Your task to perform on an android device: add a contact in the contacts app Image 0: 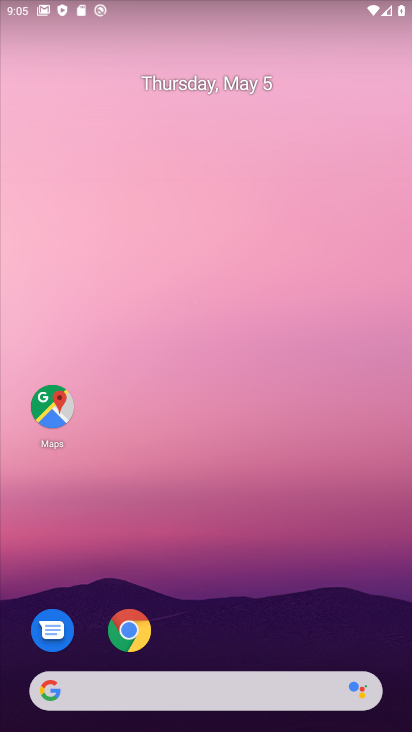
Step 0: drag from (216, 556) to (139, 211)
Your task to perform on an android device: add a contact in the contacts app Image 1: 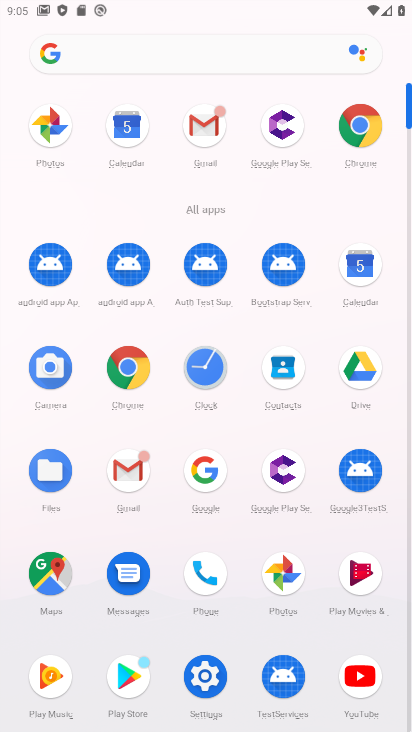
Step 1: click (278, 362)
Your task to perform on an android device: add a contact in the contacts app Image 2: 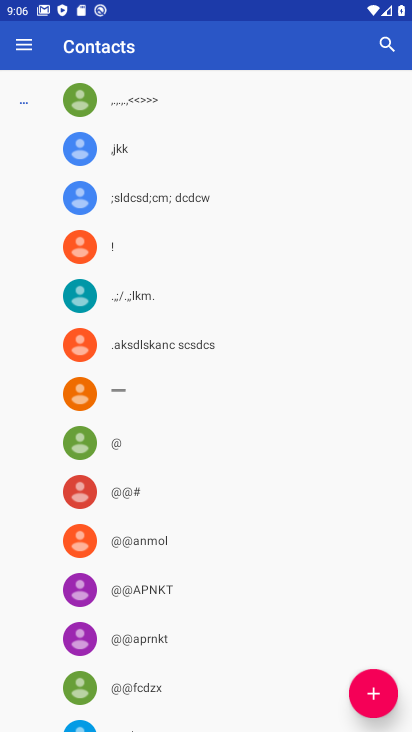
Step 2: click (375, 699)
Your task to perform on an android device: add a contact in the contacts app Image 3: 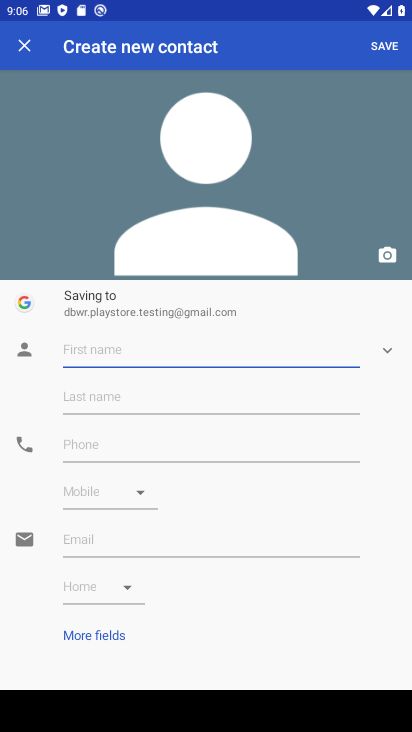
Step 3: click (132, 358)
Your task to perform on an android device: add a contact in the contacts app Image 4: 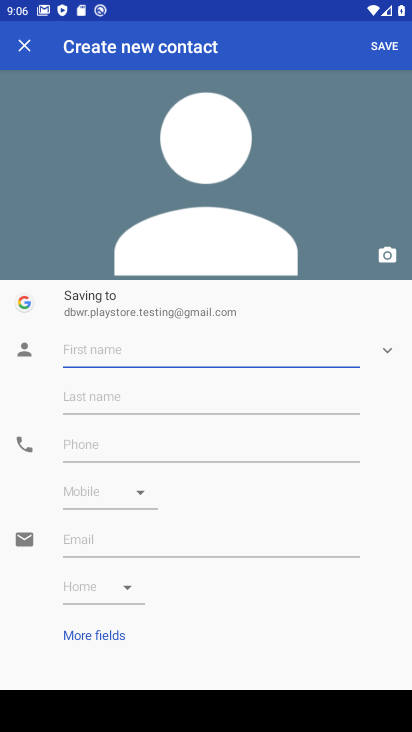
Step 4: type "reya"
Your task to perform on an android device: add a contact in the contacts app Image 5: 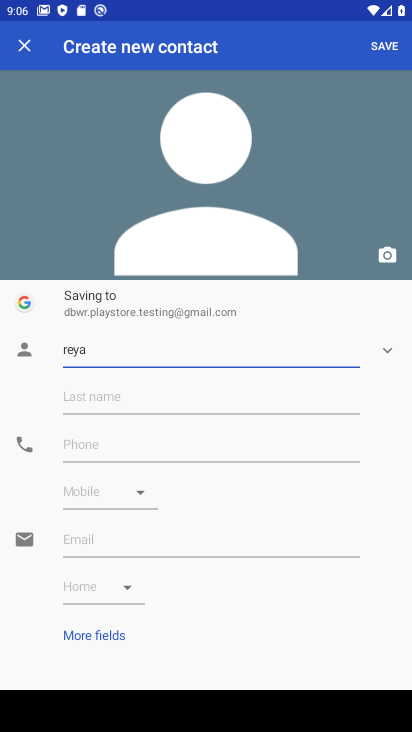
Step 5: click (101, 447)
Your task to perform on an android device: add a contact in the contacts app Image 6: 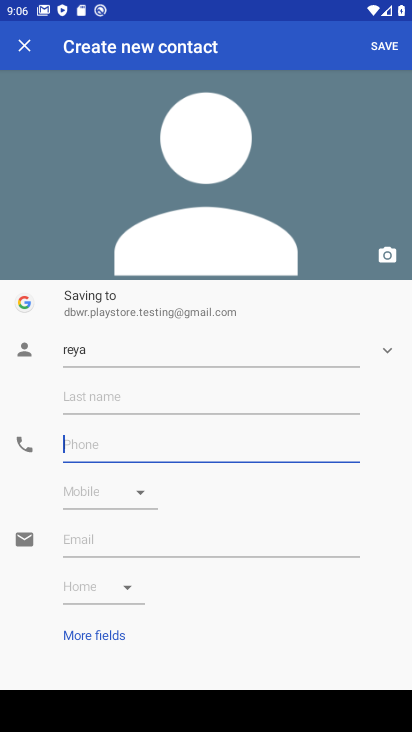
Step 6: type ""
Your task to perform on an android device: add a contact in the contacts app Image 7: 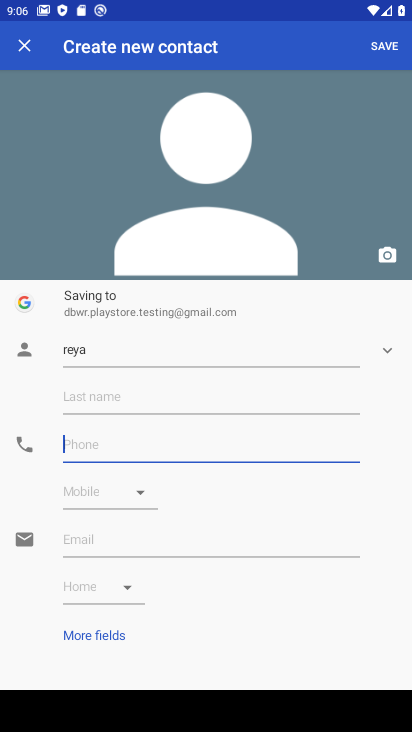
Step 7: type "783648723"
Your task to perform on an android device: add a contact in the contacts app Image 8: 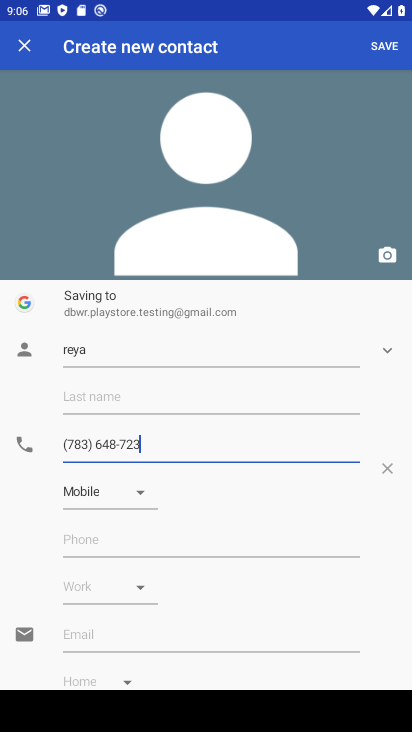
Step 8: click (383, 49)
Your task to perform on an android device: add a contact in the contacts app Image 9: 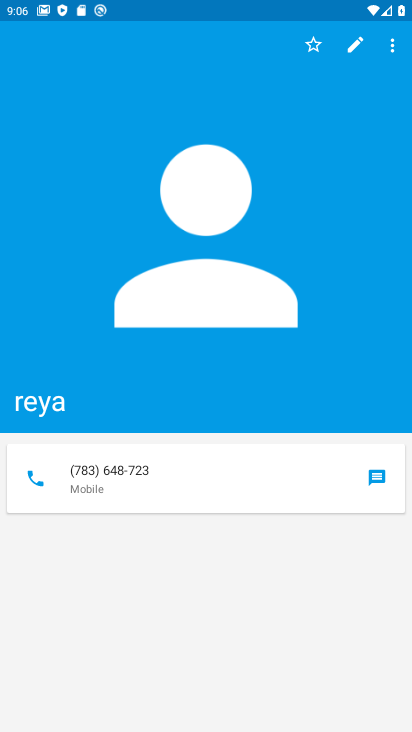
Step 9: task complete